Your task to perform on an android device: Go to internet settings Image 0: 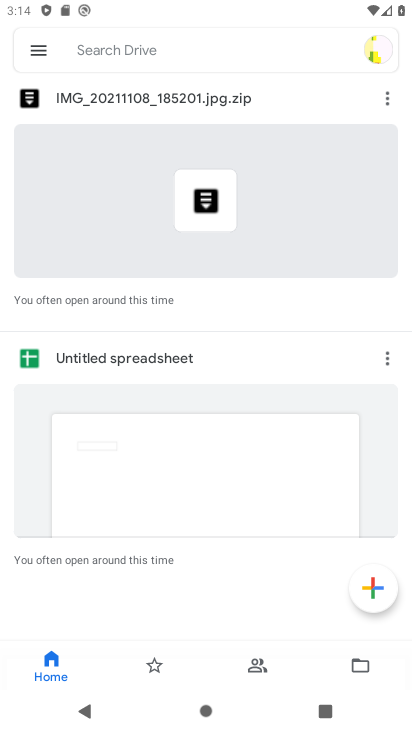
Step 0: press home button
Your task to perform on an android device: Go to internet settings Image 1: 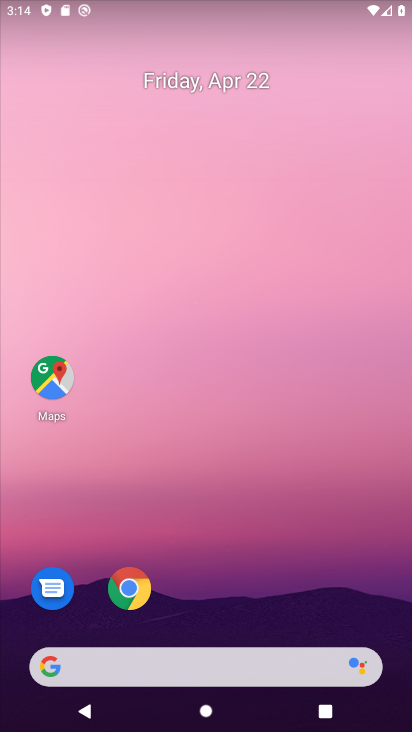
Step 1: drag from (216, 449) to (242, 153)
Your task to perform on an android device: Go to internet settings Image 2: 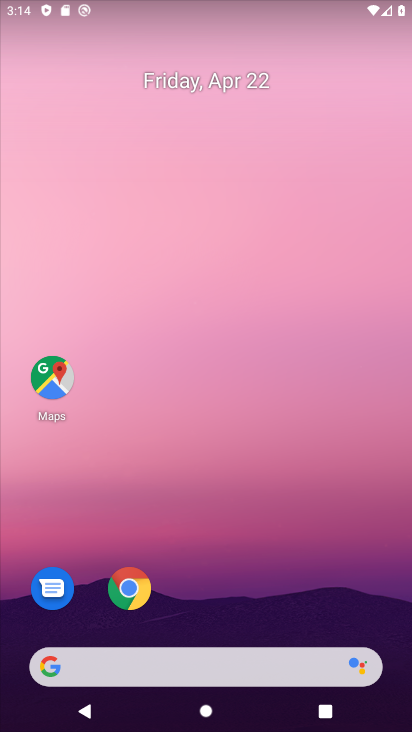
Step 2: drag from (190, 382) to (229, 25)
Your task to perform on an android device: Go to internet settings Image 3: 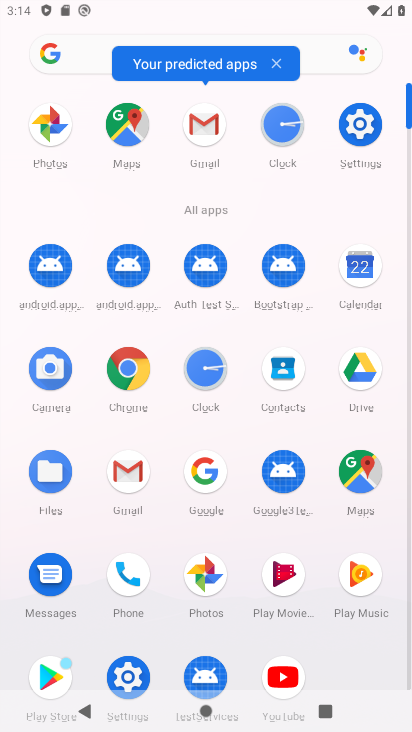
Step 3: click (356, 130)
Your task to perform on an android device: Go to internet settings Image 4: 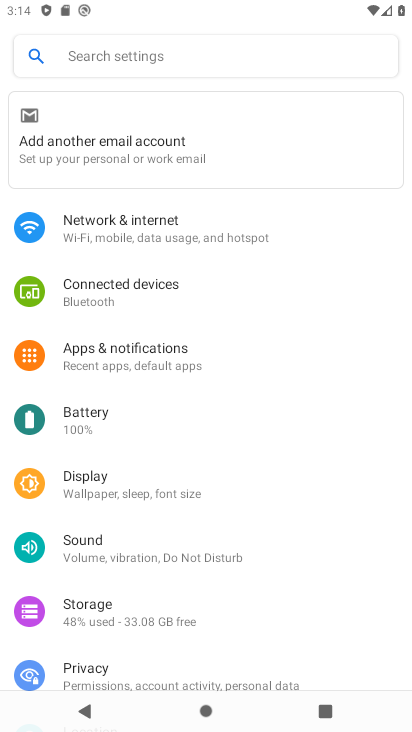
Step 4: click (115, 230)
Your task to perform on an android device: Go to internet settings Image 5: 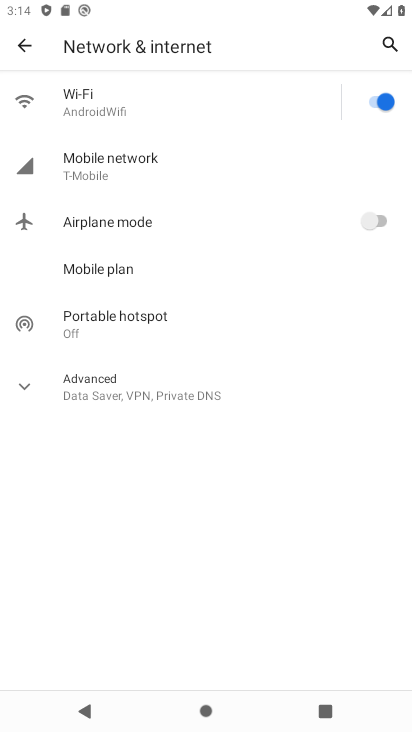
Step 5: task complete